Your task to perform on an android device: Open battery settings Image 0: 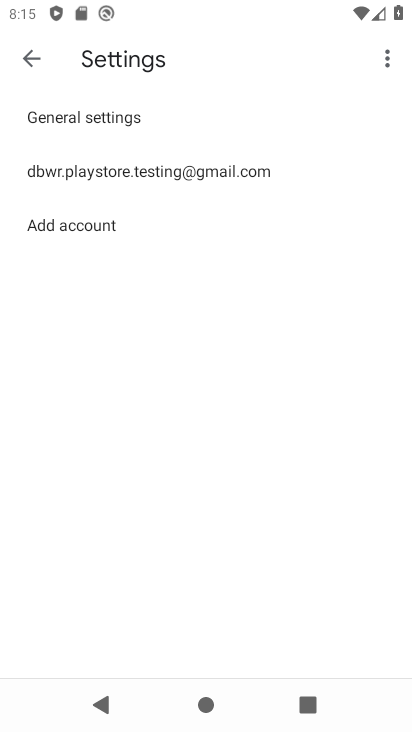
Step 0: press home button
Your task to perform on an android device: Open battery settings Image 1: 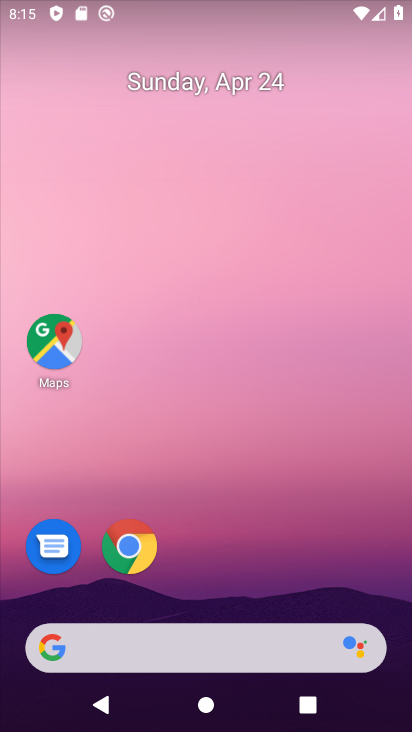
Step 1: drag from (244, 584) to (298, 180)
Your task to perform on an android device: Open battery settings Image 2: 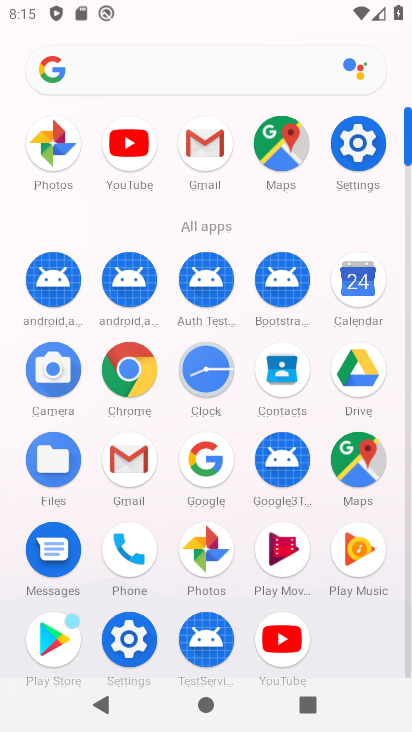
Step 2: click (353, 141)
Your task to perform on an android device: Open battery settings Image 3: 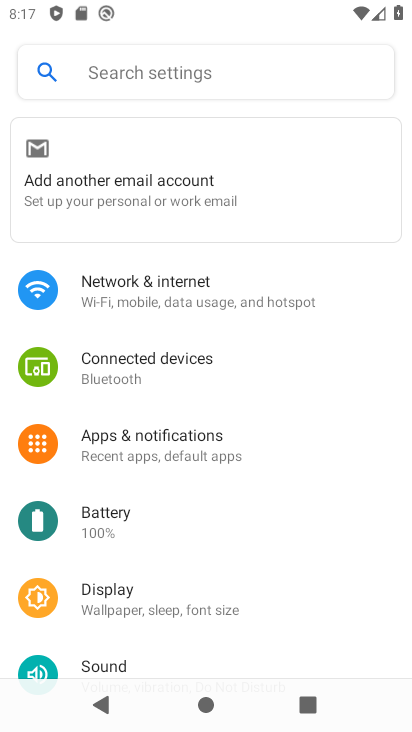
Step 3: click (180, 513)
Your task to perform on an android device: Open battery settings Image 4: 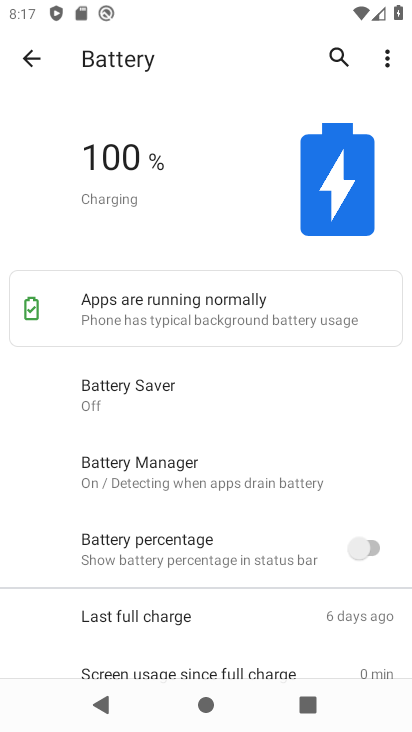
Step 4: task complete